Your task to perform on an android device: check data usage Image 0: 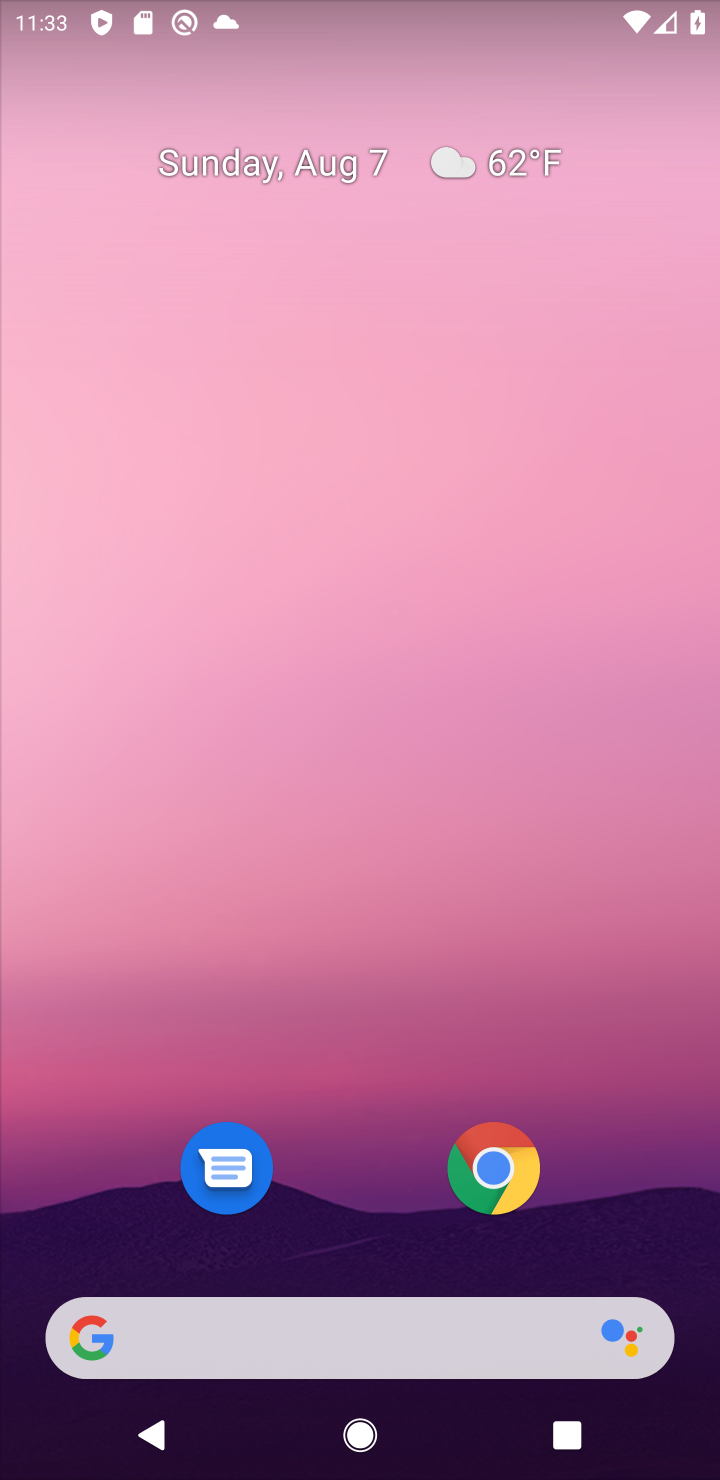
Step 0: press home button
Your task to perform on an android device: check data usage Image 1: 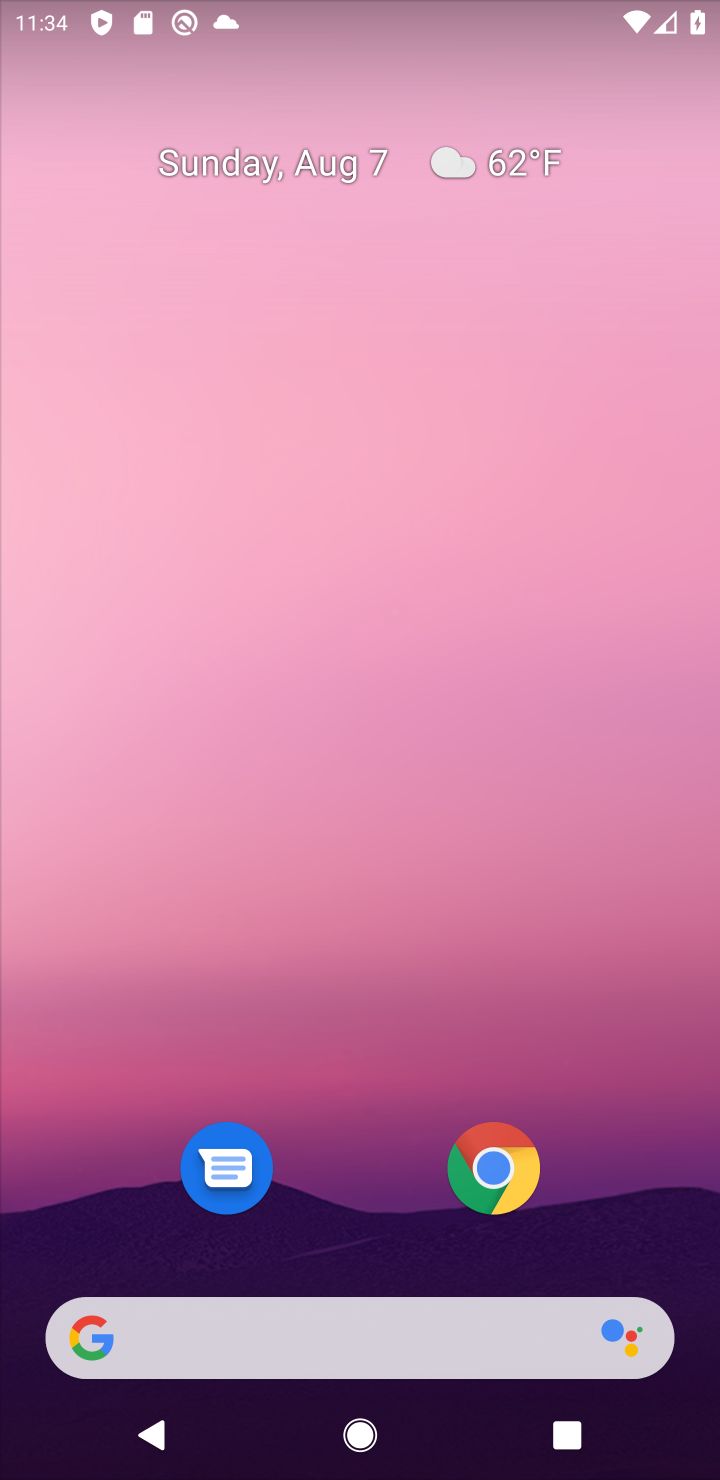
Step 1: drag from (340, 1280) to (317, 416)
Your task to perform on an android device: check data usage Image 2: 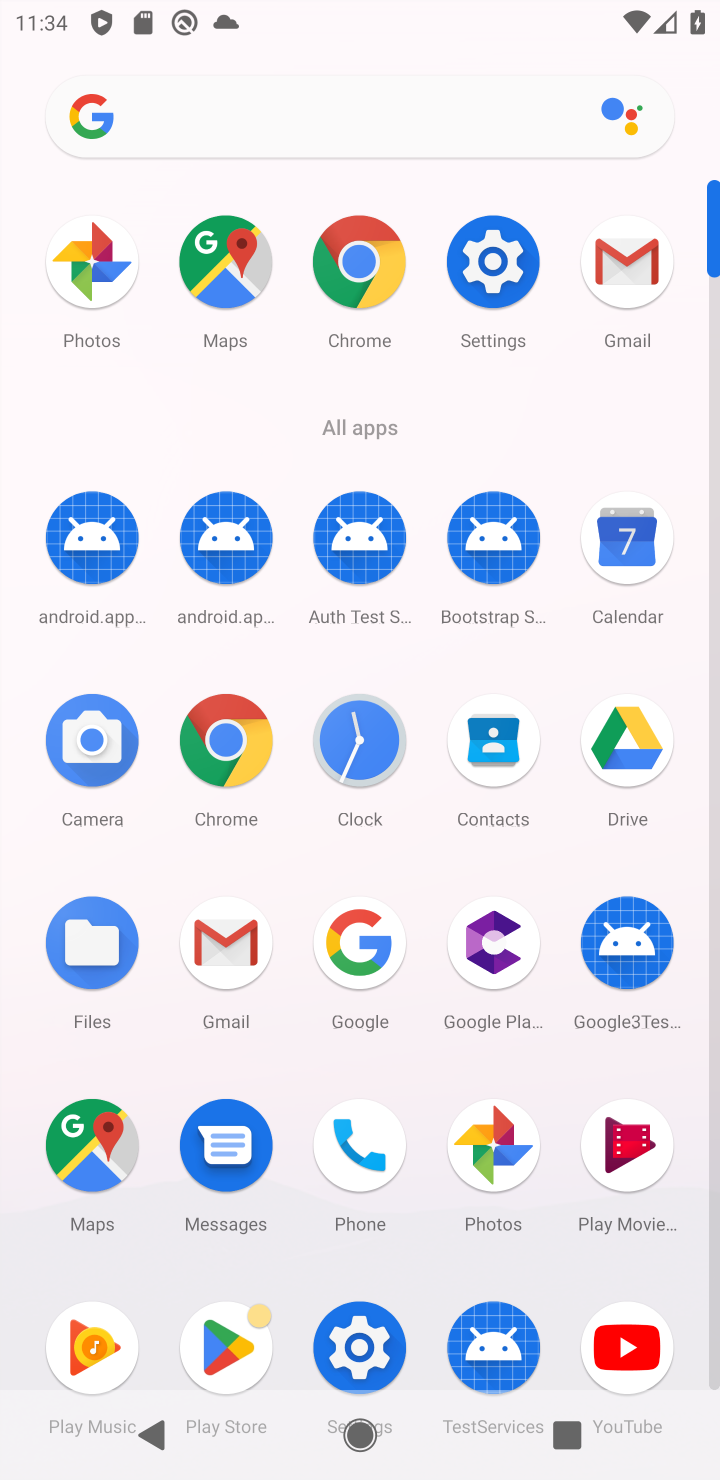
Step 2: click (489, 279)
Your task to perform on an android device: check data usage Image 3: 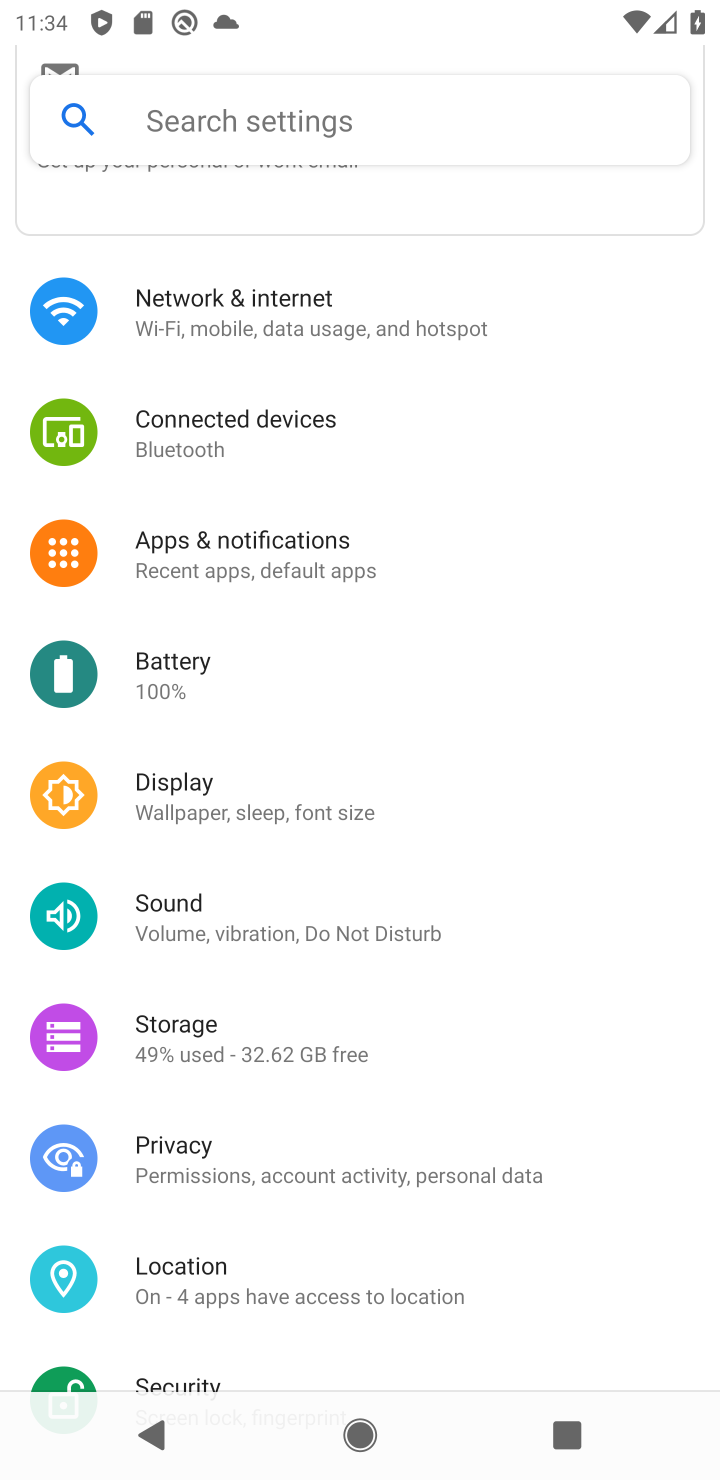
Step 3: drag from (464, 1074) to (443, 634)
Your task to perform on an android device: check data usage Image 4: 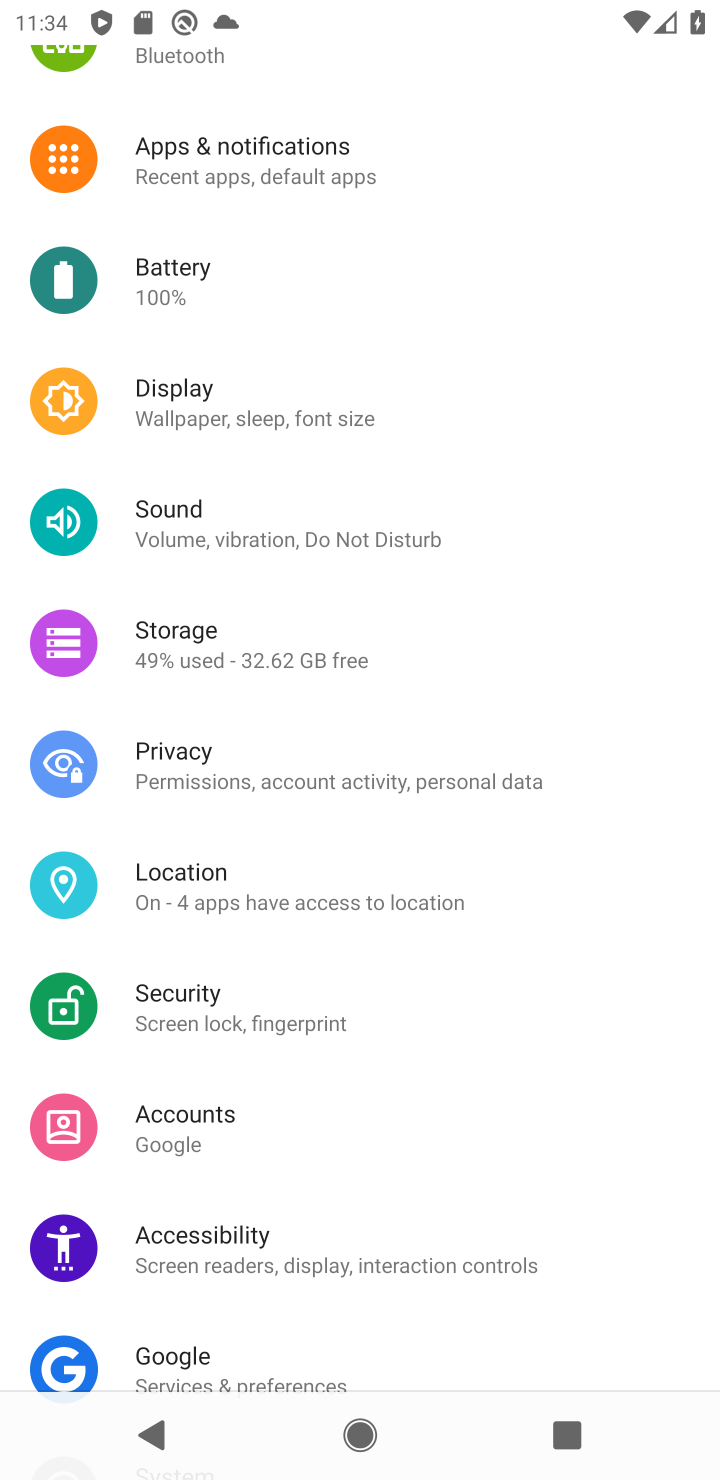
Step 4: drag from (521, 1140) to (542, 305)
Your task to perform on an android device: check data usage Image 5: 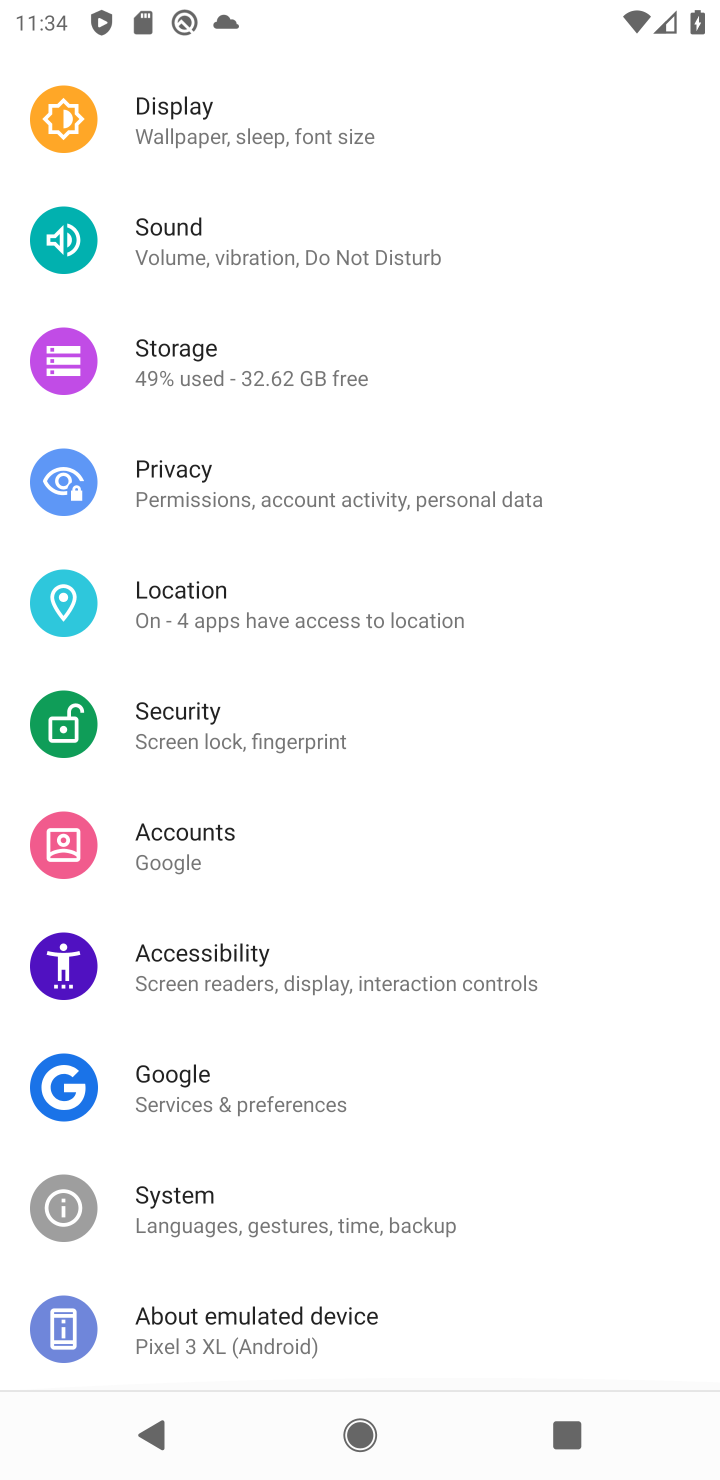
Step 5: drag from (554, 458) to (499, 1459)
Your task to perform on an android device: check data usage Image 6: 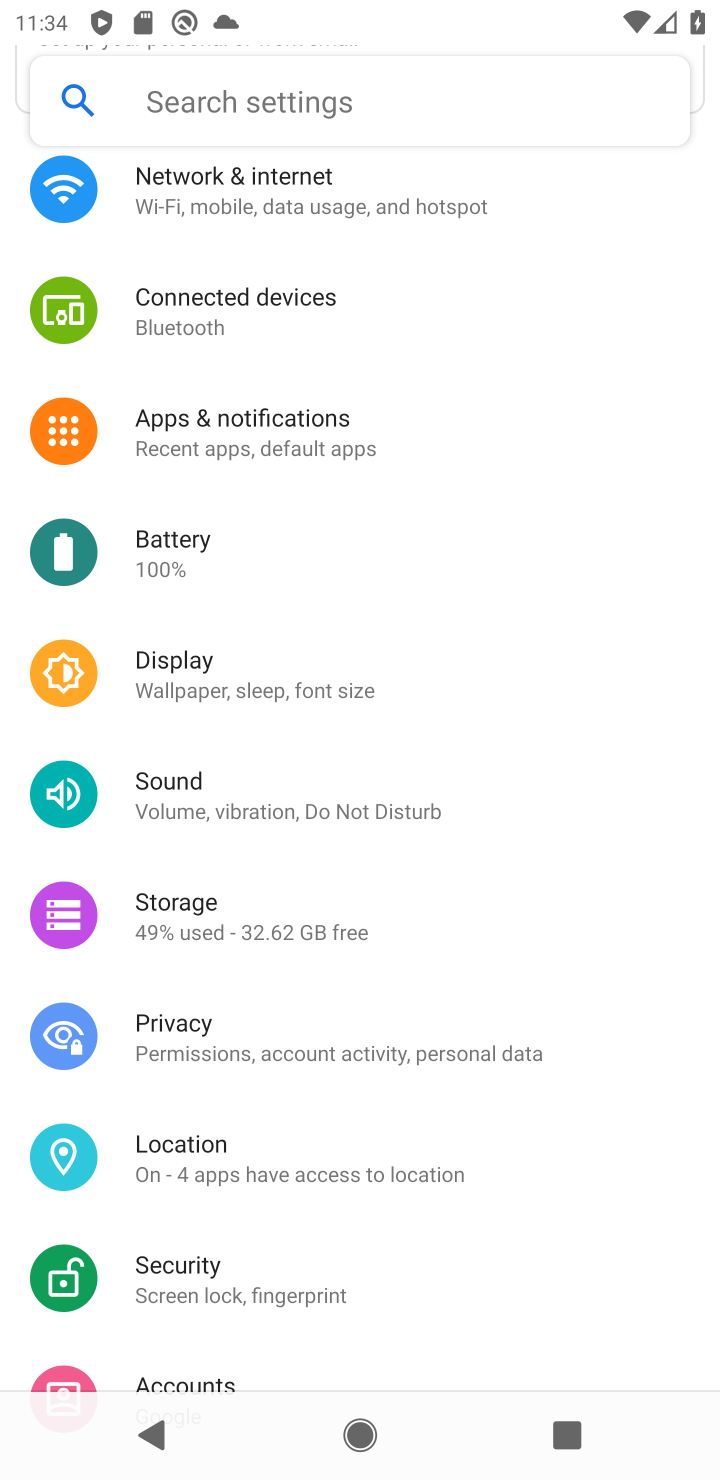
Step 6: click (232, 195)
Your task to perform on an android device: check data usage Image 7: 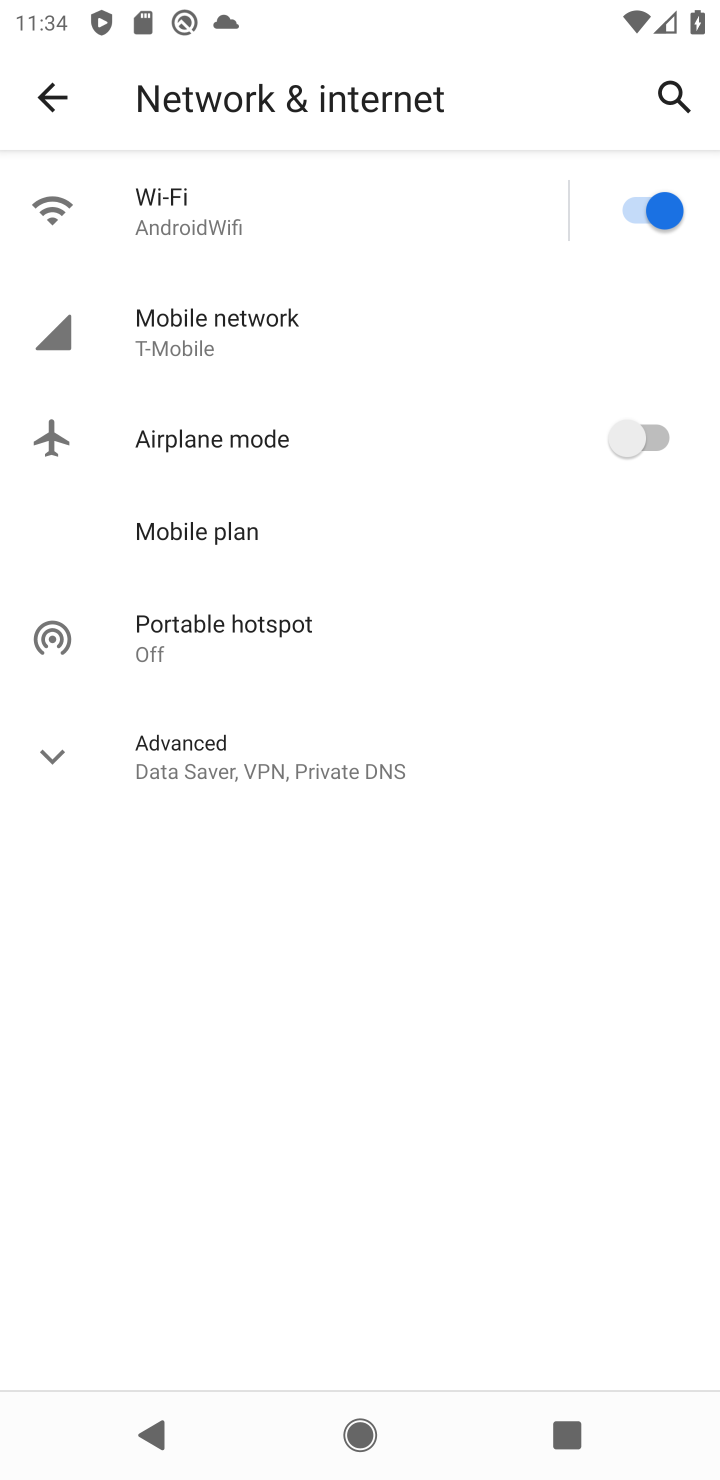
Step 7: click (189, 344)
Your task to perform on an android device: check data usage Image 8: 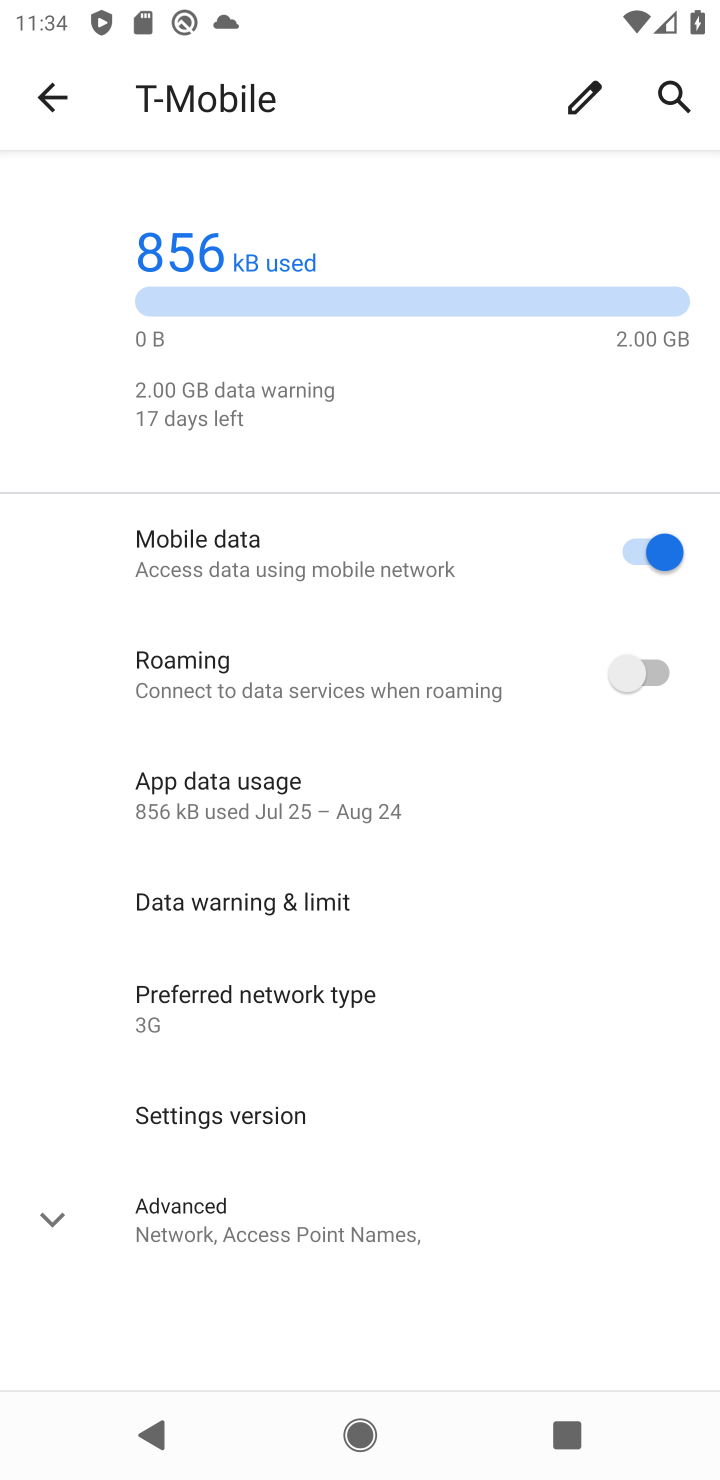
Step 8: click (184, 798)
Your task to perform on an android device: check data usage Image 9: 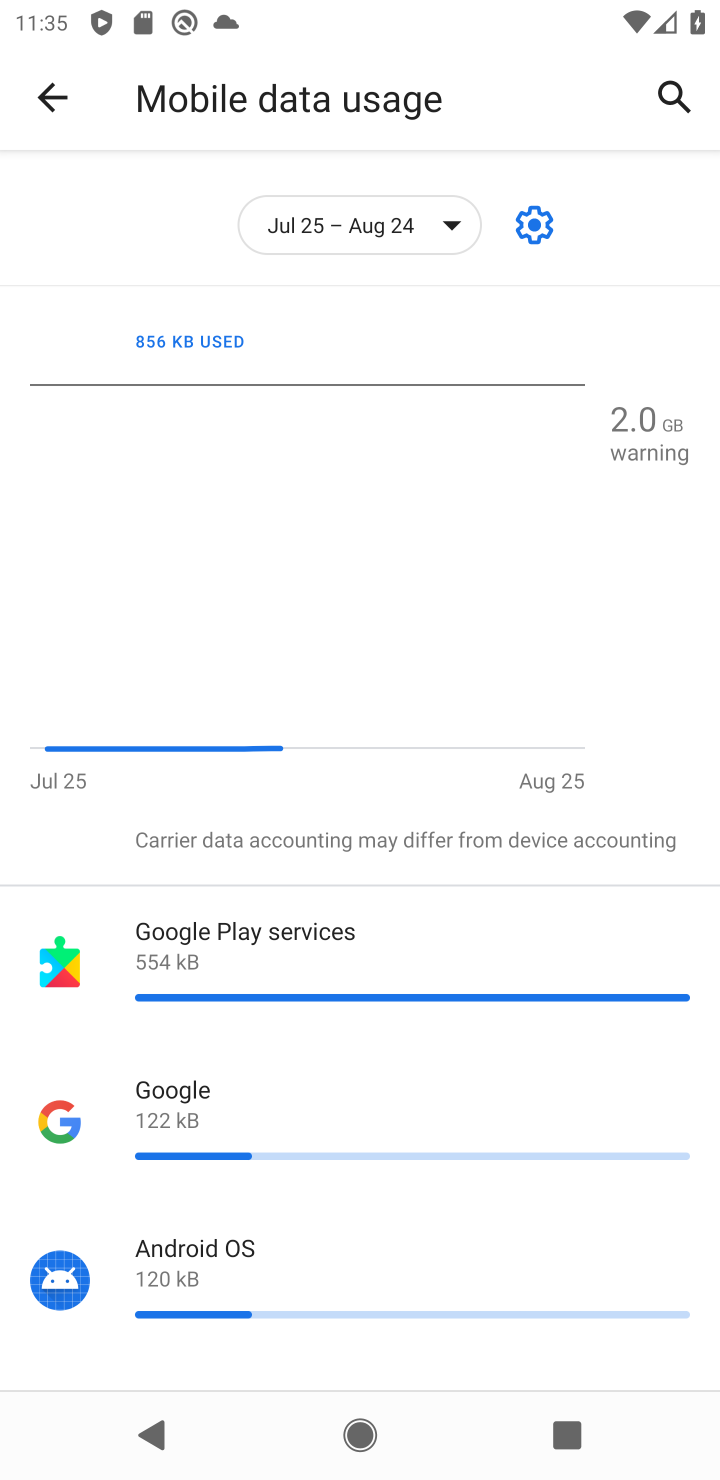
Step 9: task complete